Your task to perform on an android device: check battery use Image 0: 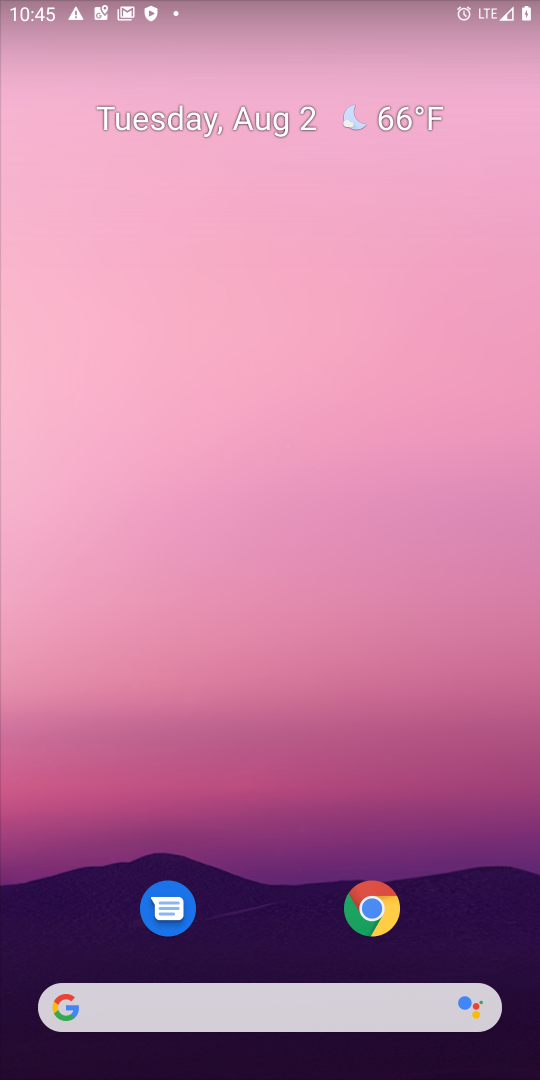
Step 0: drag from (307, 516) to (337, 128)
Your task to perform on an android device: check battery use Image 1: 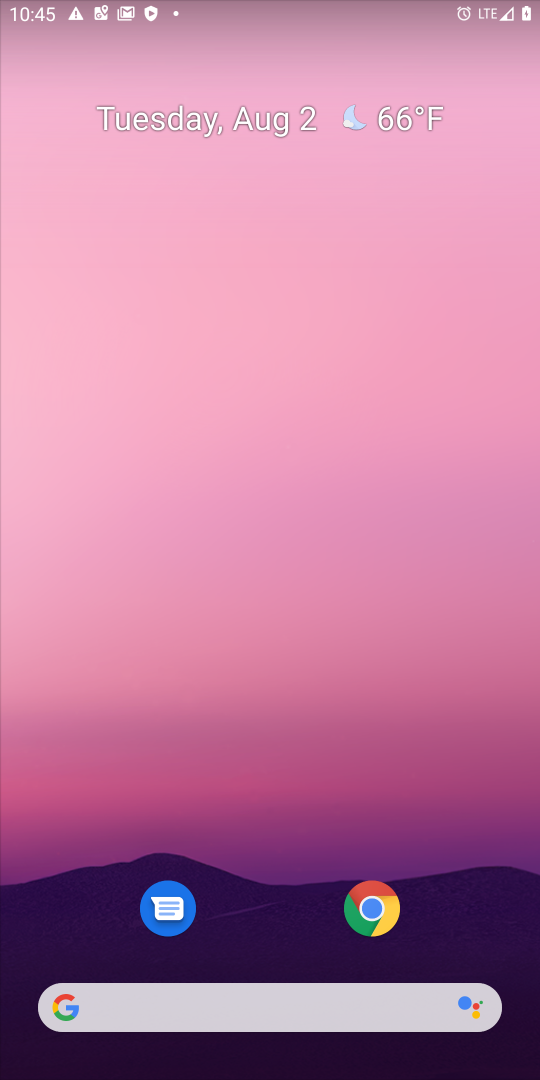
Step 1: drag from (288, 686) to (258, 27)
Your task to perform on an android device: check battery use Image 2: 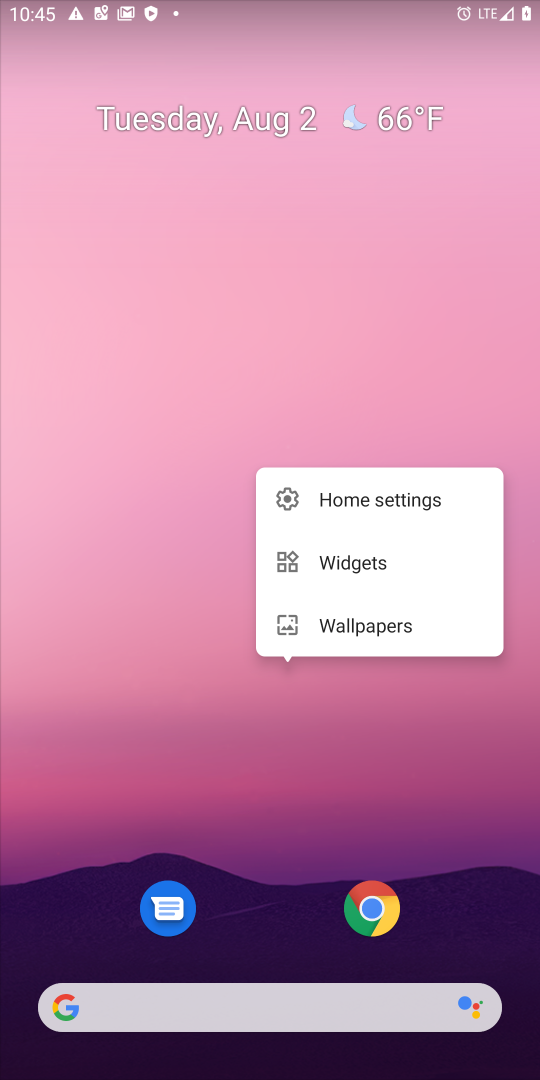
Step 2: drag from (290, 766) to (273, 79)
Your task to perform on an android device: check battery use Image 3: 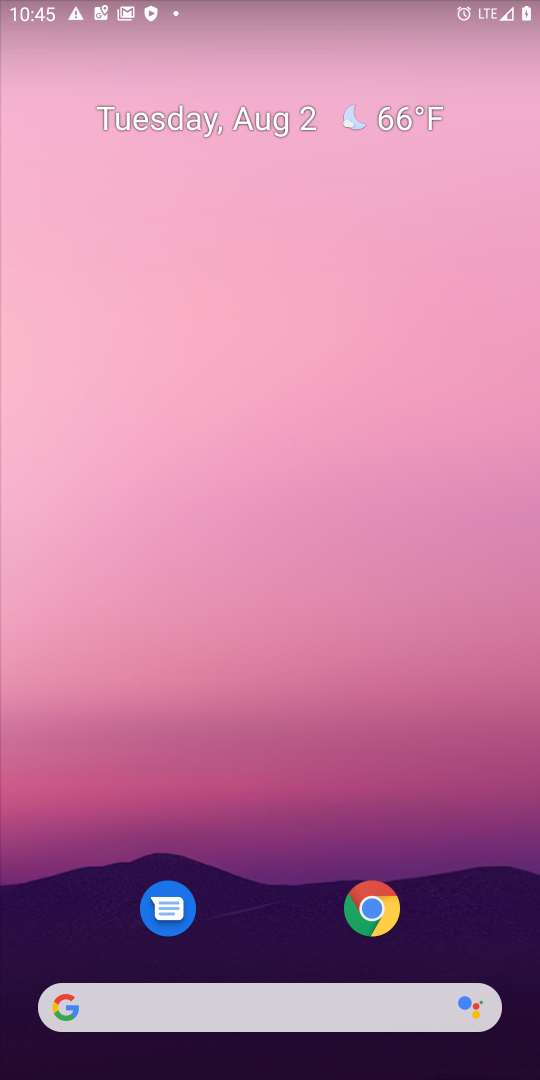
Step 3: press home button
Your task to perform on an android device: check battery use Image 4: 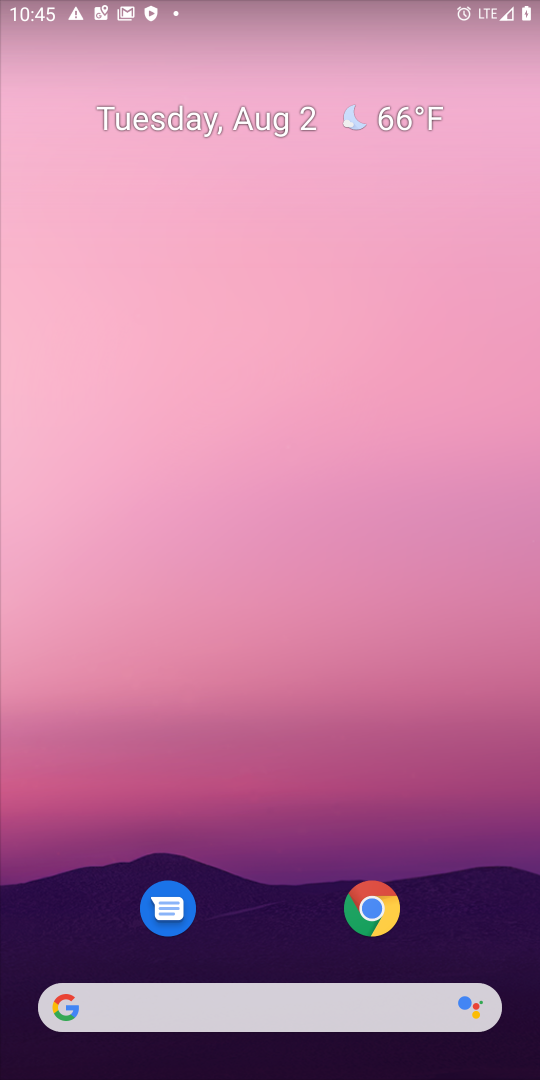
Step 4: drag from (344, 460) to (311, 29)
Your task to perform on an android device: check battery use Image 5: 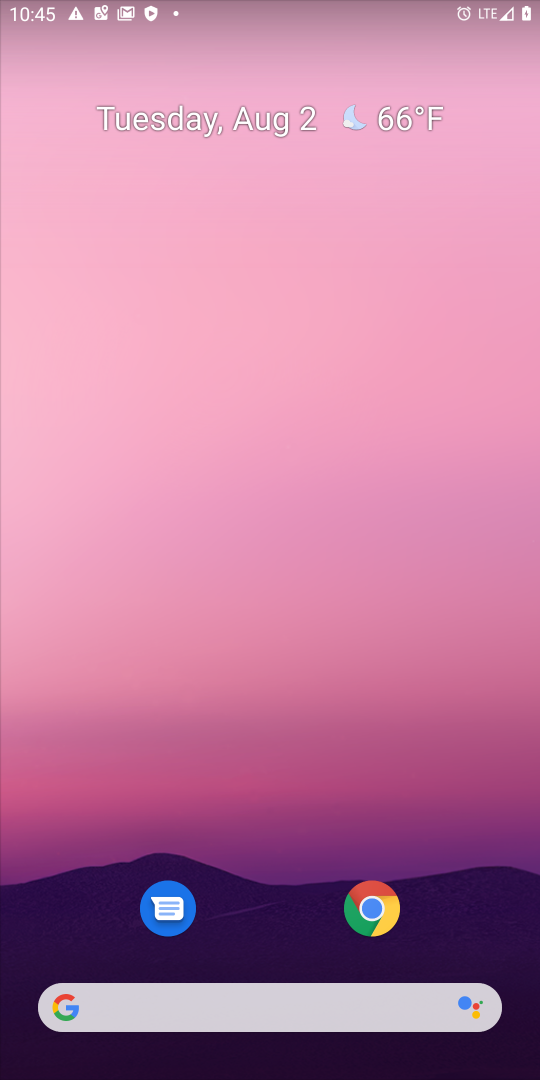
Step 5: drag from (285, 806) to (290, 6)
Your task to perform on an android device: check battery use Image 6: 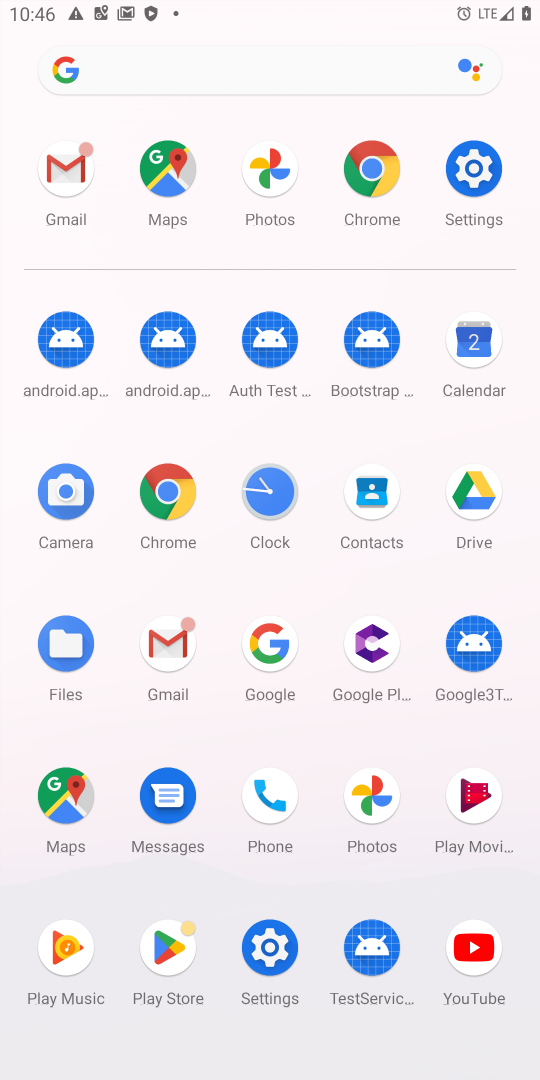
Step 6: click (463, 161)
Your task to perform on an android device: check battery use Image 7: 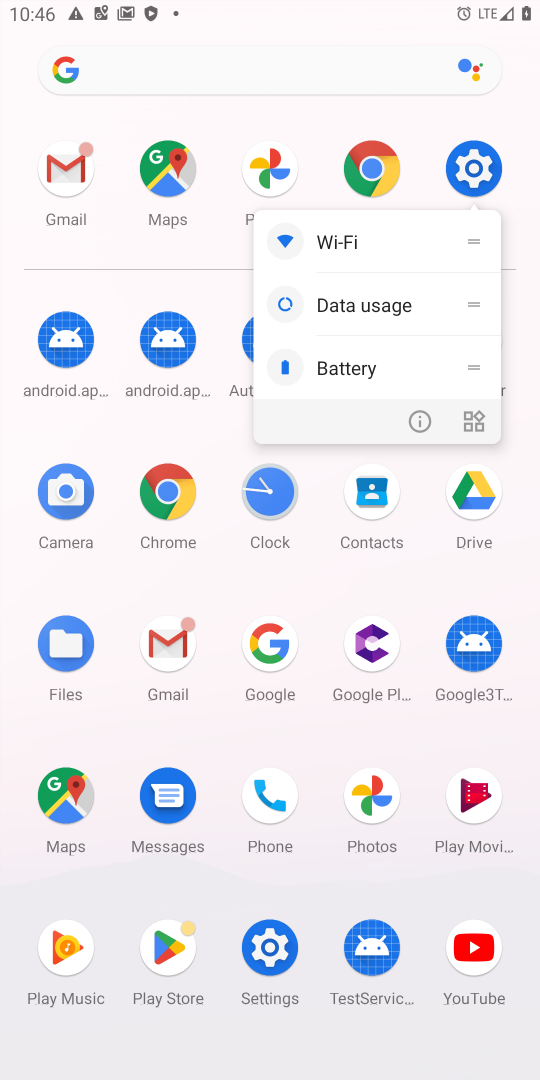
Step 7: click (475, 179)
Your task to perform on an android device: check battery use Image 8: 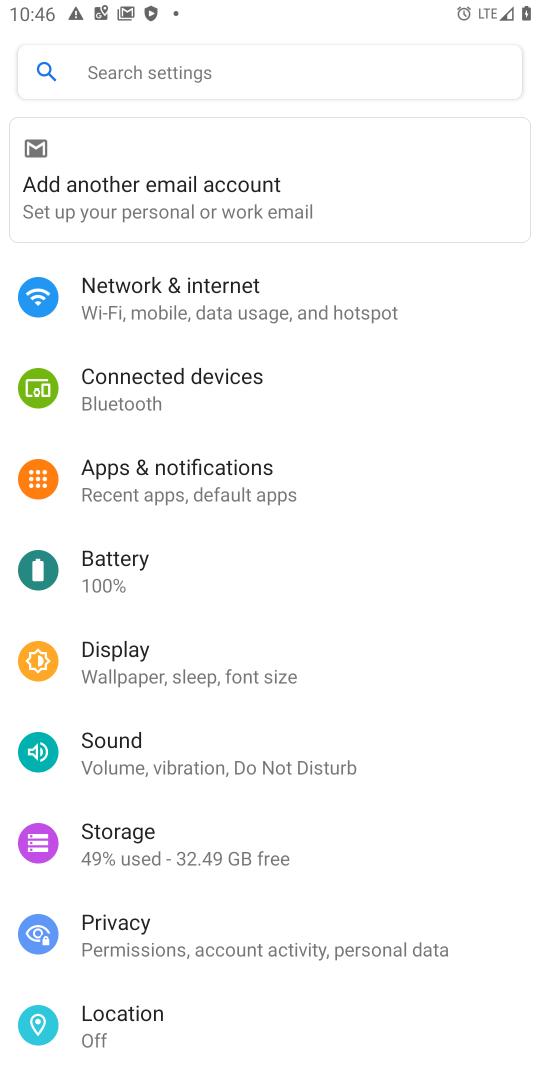
Step 8: click (197, 451)
Your task to perform on an android device: check battery use Image 9: 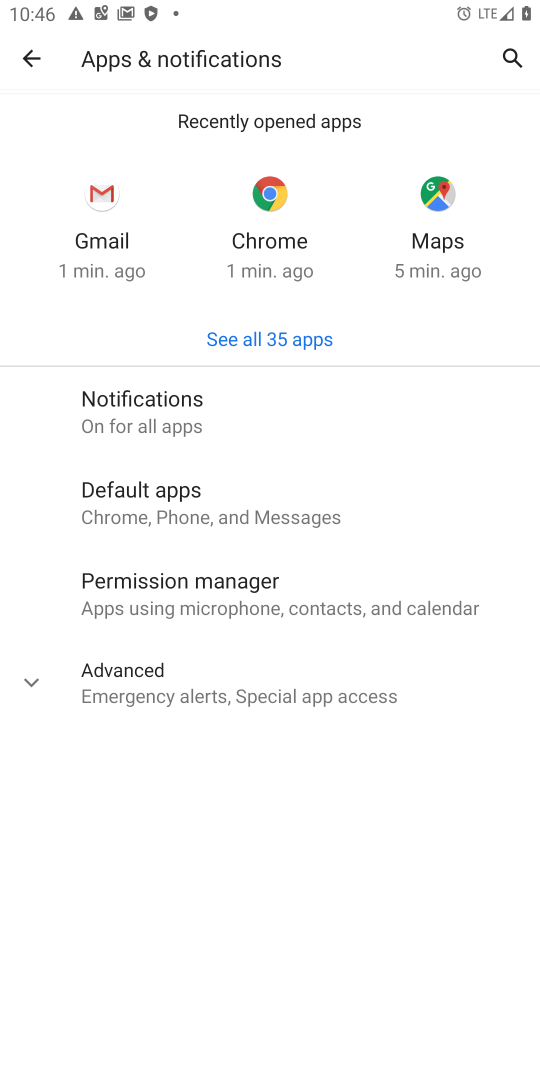
Step 9: press back button
Your task to perform on an android device: check battery use Image 10: 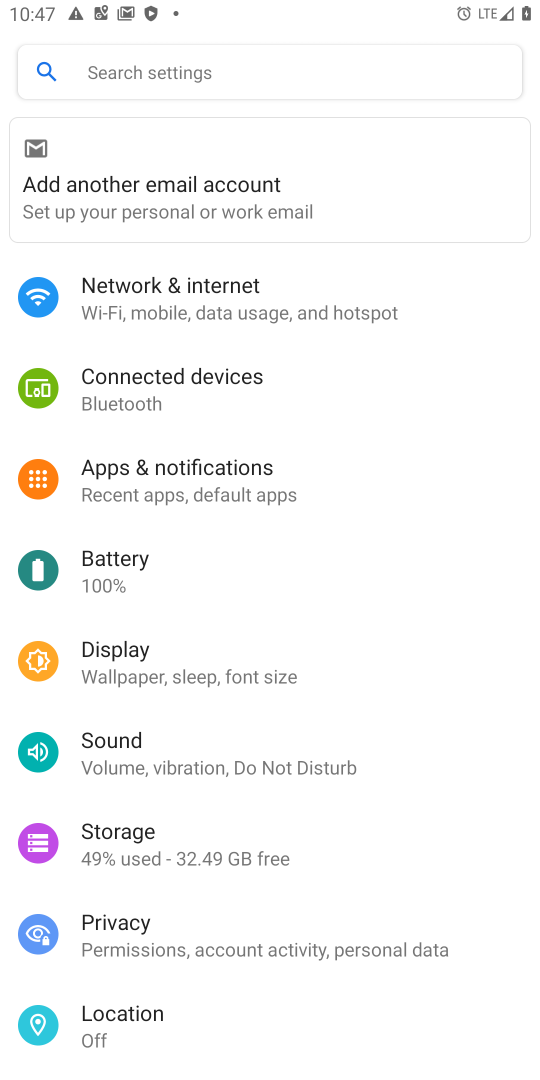
Step 10: click (196, 590)
Your task to perform on an android device: check battery use Image 11: 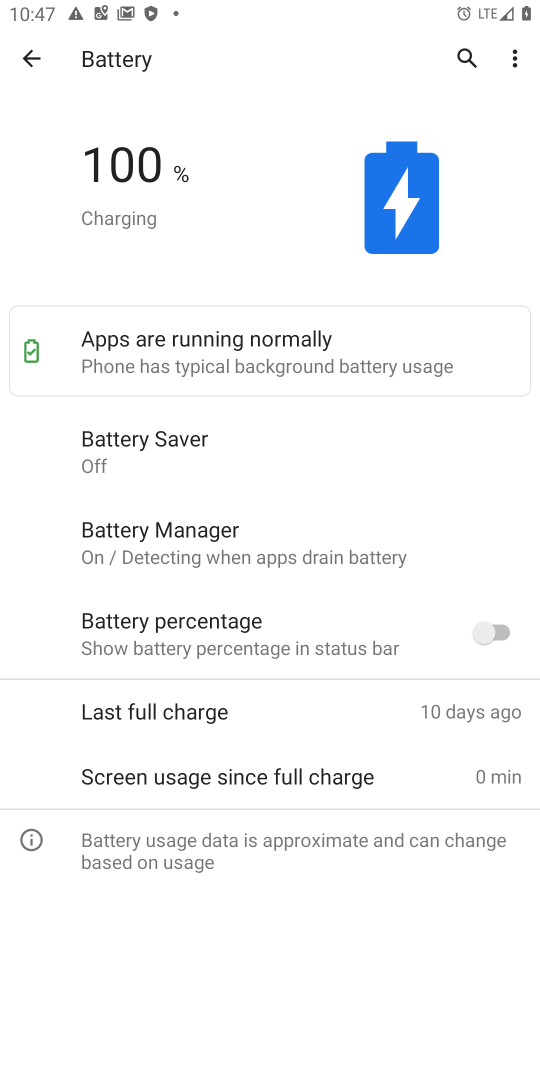
Step 11: click (174, 573)
Your task to perform on an android device: check battery use Image 12: 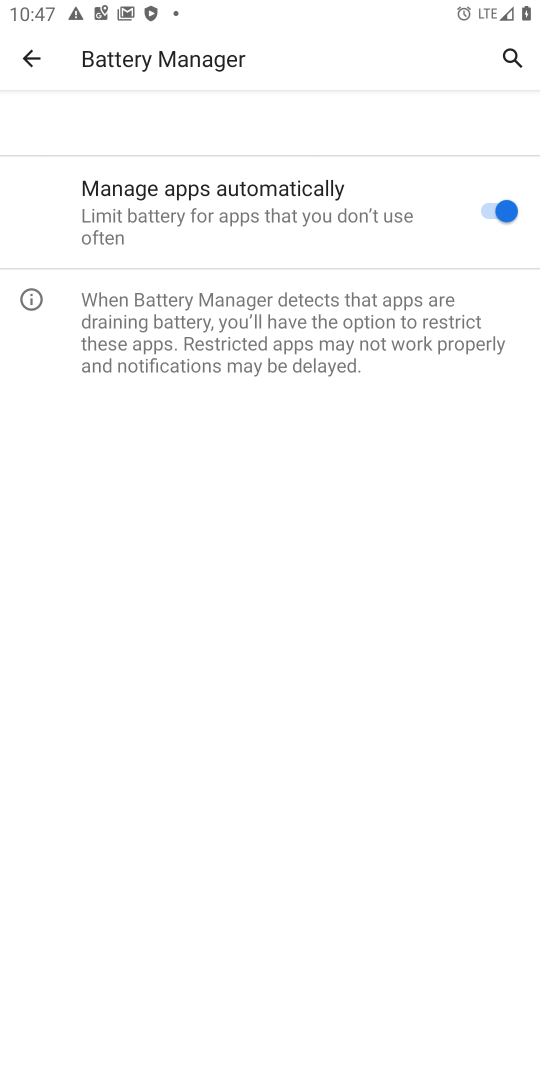
Step 12: press back button
Your task to perform on an android device: check battery use Image 13: 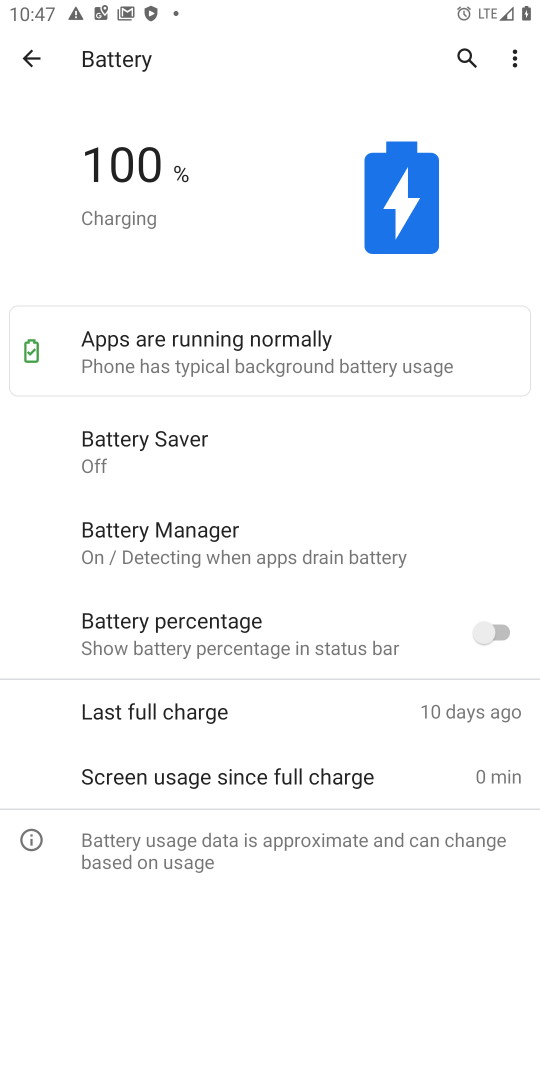
Step 13: click (526, 48)
Your task to perform on an android device: check battery use Image 14: 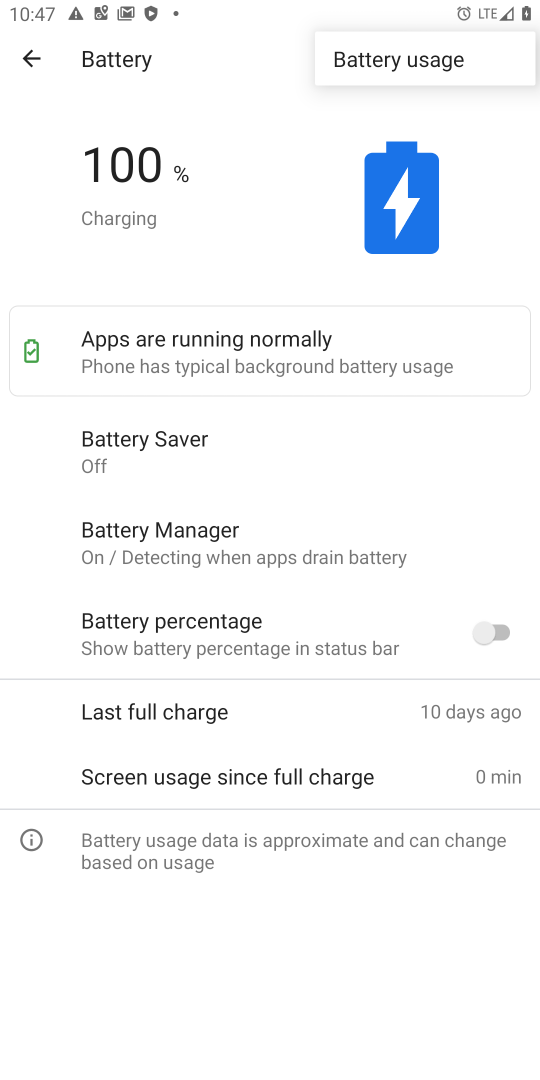
Step 14: click (454, 77)
Your task to perform on an android device: check battery use Image 15: 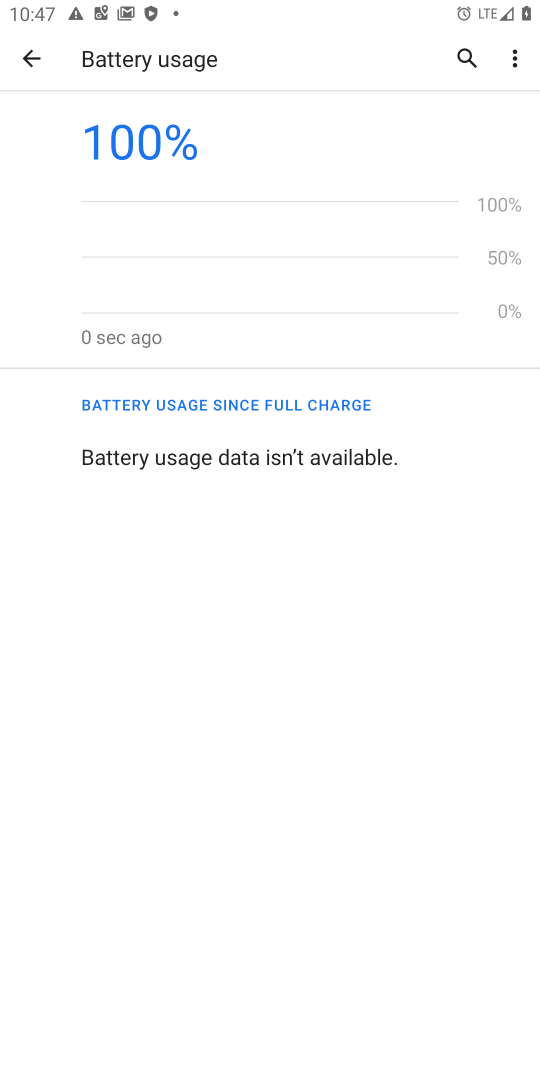
Step 15: task complete